Your task to perform on an android device: turn off airplane mode Image 0: 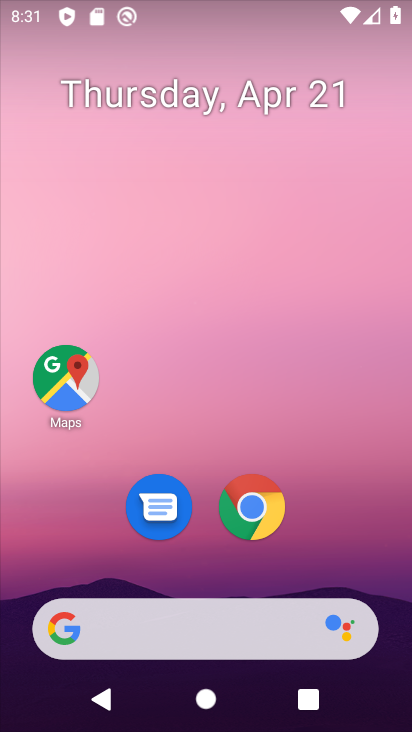
Step 0: drag from (357, 539) to (386, 77)
Your task to perform on an android device: turn off airplane mode Image 1: 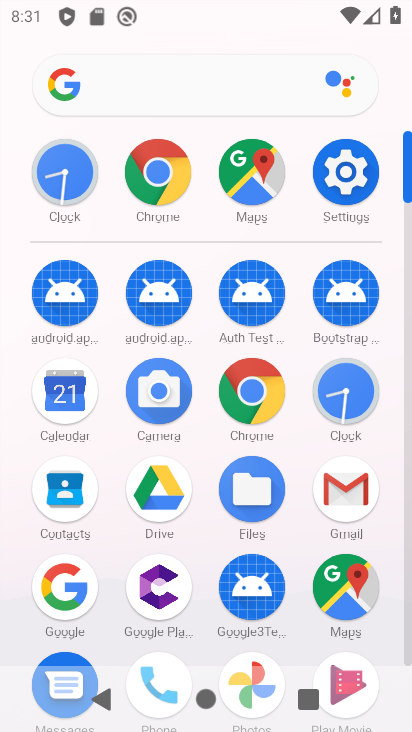
Step 1: drag from (308, 545) to (291, 296)
Your task to perform on an android device: turn off airplane mode Image 2: 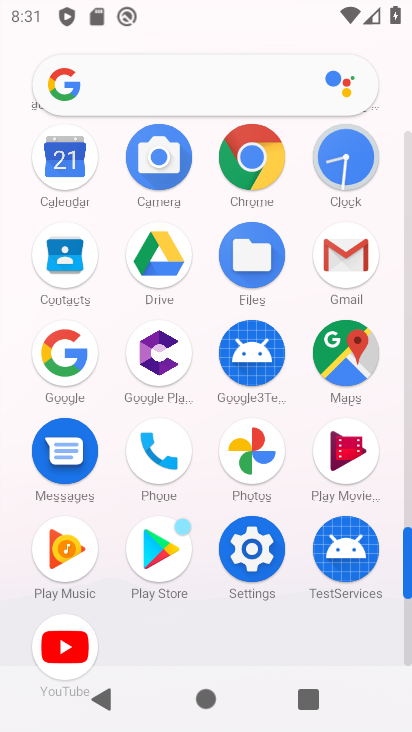
Step 2: click (256, 545)
Your task to perform on an android device: turn off airplane mode Image 3: 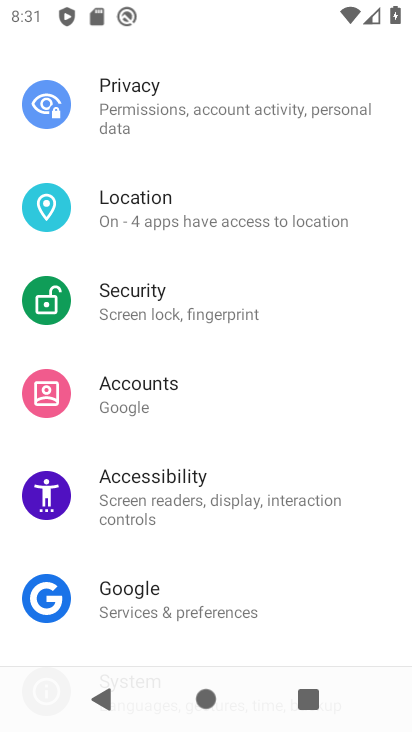
Step 3: drag from (341, 190) to (263, 634)
Your task to perform on an android device: turn off airplane mode Image 4: 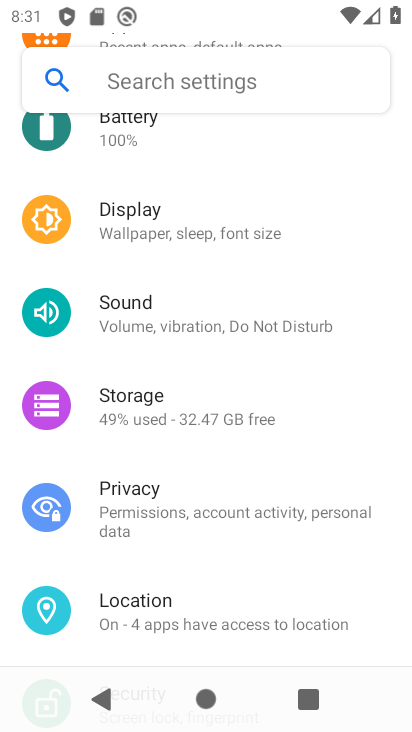
Step 4: drag from (330, 214) to (266, 572)
Your task to perform on an android device: turn off airplane mode Image 5: 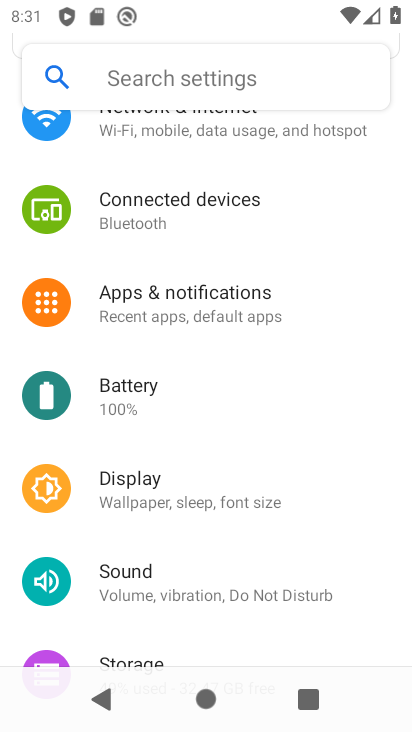
Step 5: drag from (323, 200) to (244, 555)
Your task to perform on an android device: turn off airplane mode Image 6: 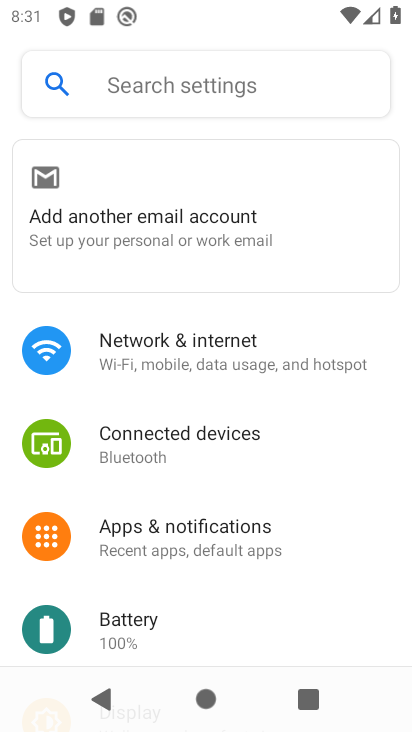
Step 6: click (266, 377)
Your task to perform on an android device: turn off airplane mode Image 7: 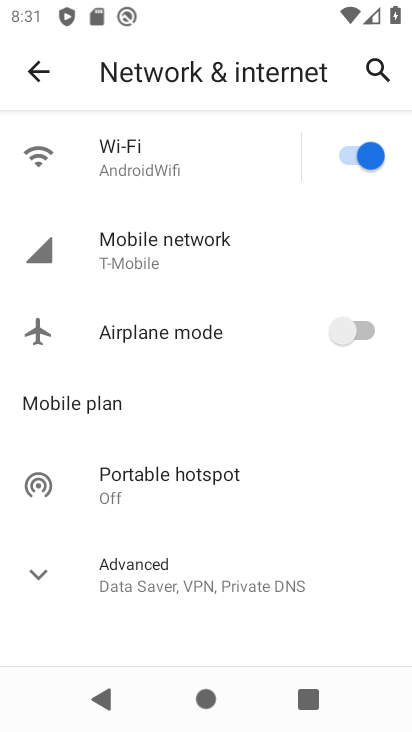
Step 7: task complete